Your task to perform on an android device: open chrome privacy settings Image 0: 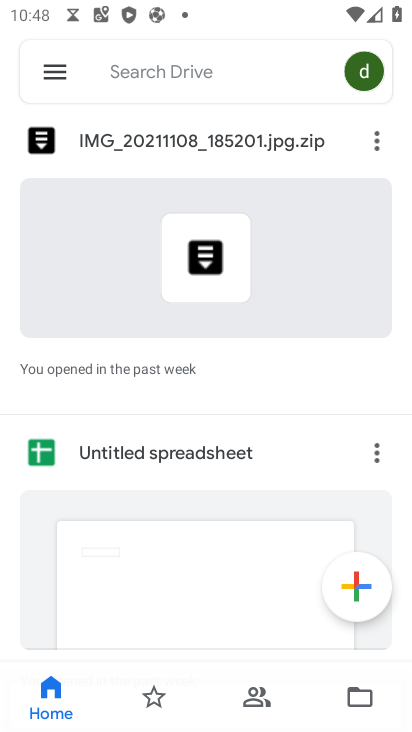
Step 0: press home button
Your task to perform on an android device: open chrome privacy settings Image 1: 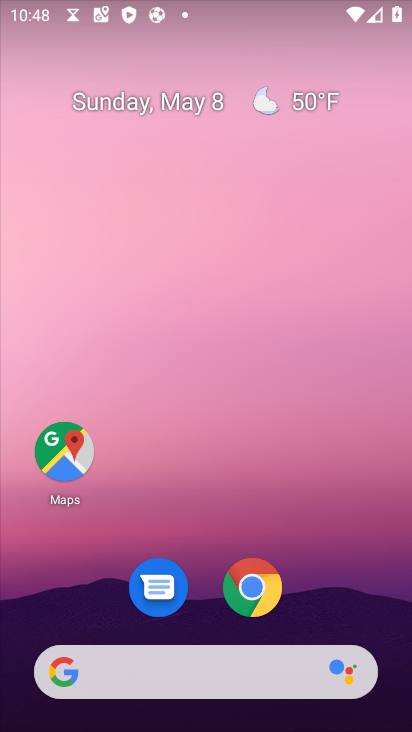
Step 1: click (263, 600)
Your task to perform on an android device: open chrome privacy settings Image 2: 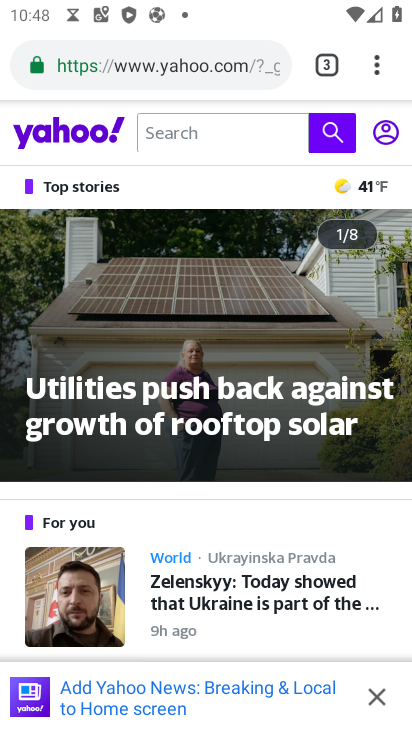
Step 2: drag from (375, 62) to (168, 634)
Your task to perform on an android device: open chrome privacy settings Image 3: 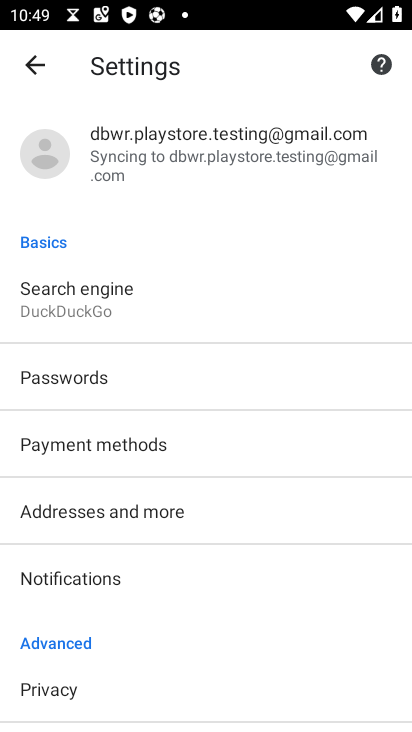
Step 3: click (49, 696)
Your task to perform on an android device: open chrome privacy settings Image 4: 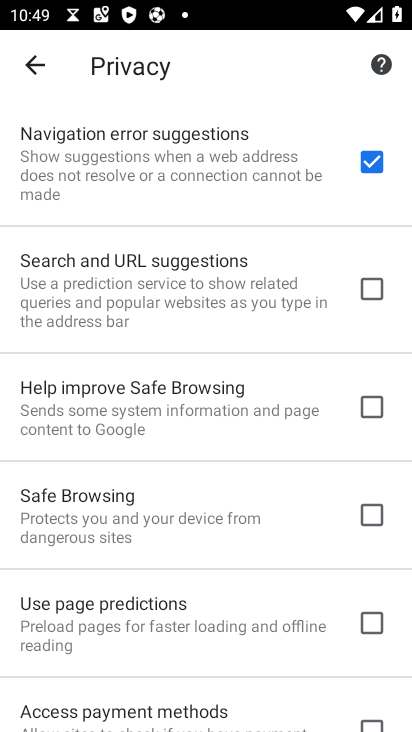
Step 4: task complete